Your task to perform on an android device: toggle notification dots Image 0: 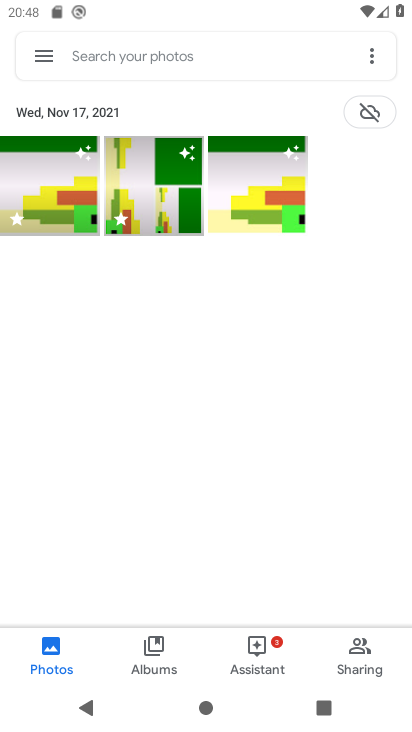
Step 0: press home button
Your task to perform on an android device: toggle notification dots Image 1: 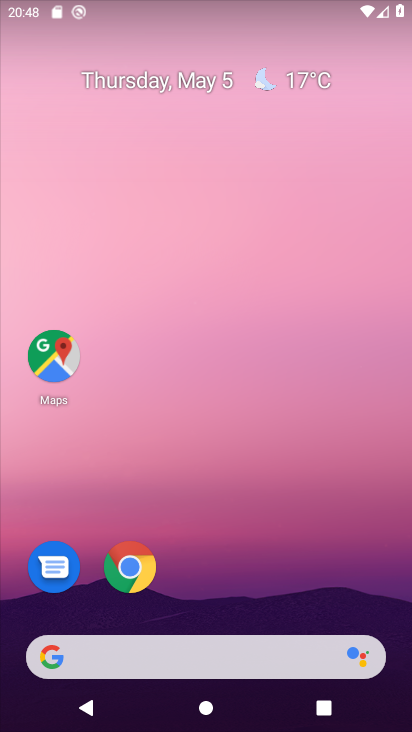
Step 1: drag from (273, 505) to (222, 19)
Your task to perform on an android device: toggle notification dots Image 2: 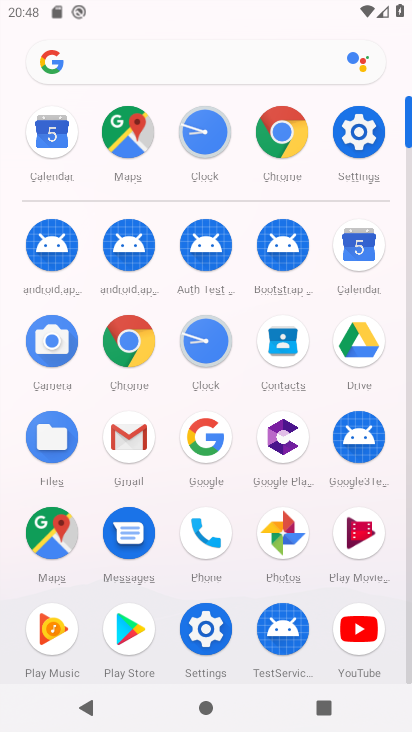
Step 2: click (360, 131)
Your task to perform on an android device: toggle notification dots Image 3: 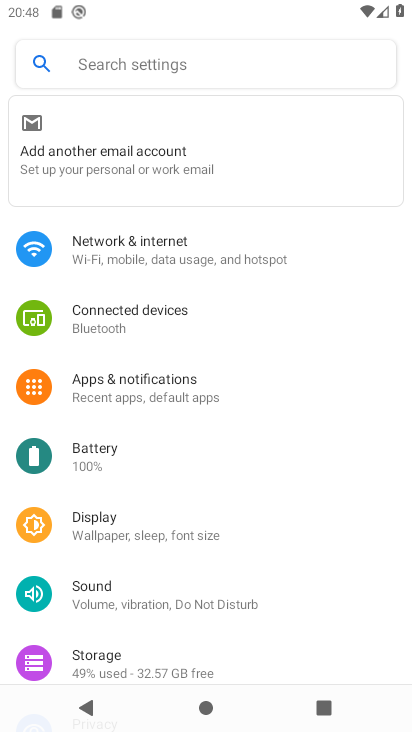
Step 3: click (214, 383)
Your task to perform on an android device: toggle notification dots Image 4: 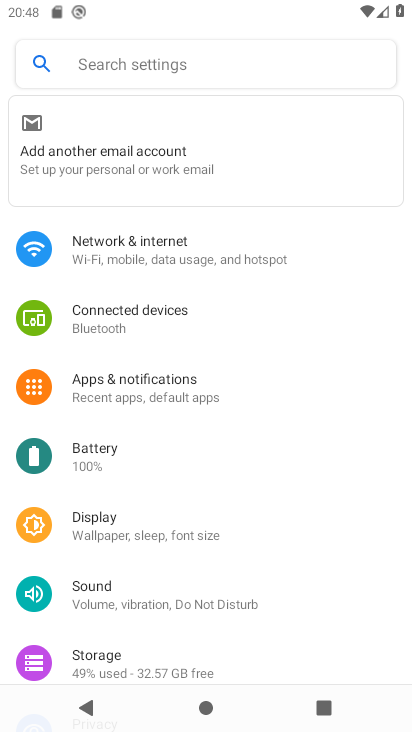
Step 4: click (196, 384)
Your task to perform on an android device: toggle notification dots Image 5: 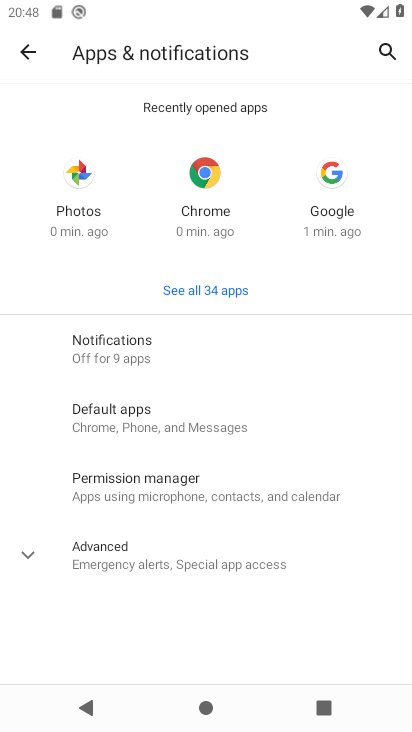
Step 5: click (132, 346)
Your task to perform on an android device: toggle notification dots Image 6: 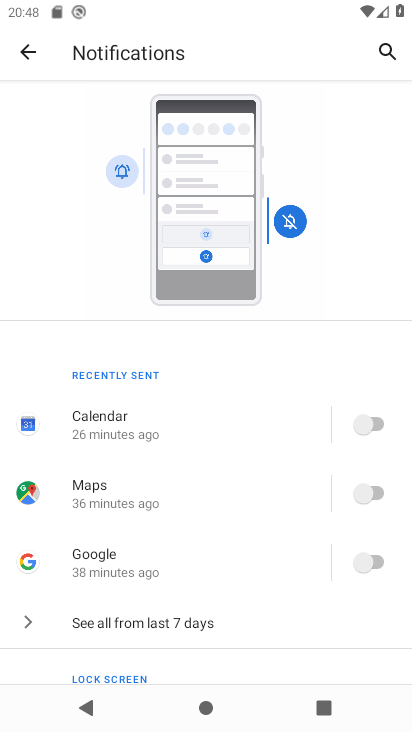
Step 6: drag from (196, 549) to (202, 150)
Your task to perform on an android device: toggle notification dots Image 7: 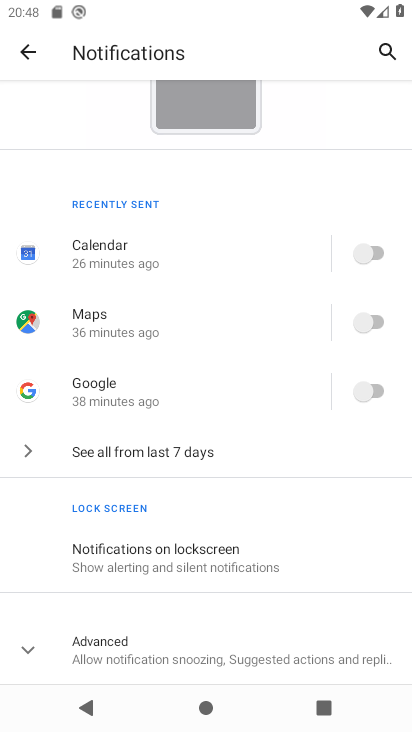
Step 7: click (25, 643)
Your task to perform on an android device: toggle notification dots Image 8: 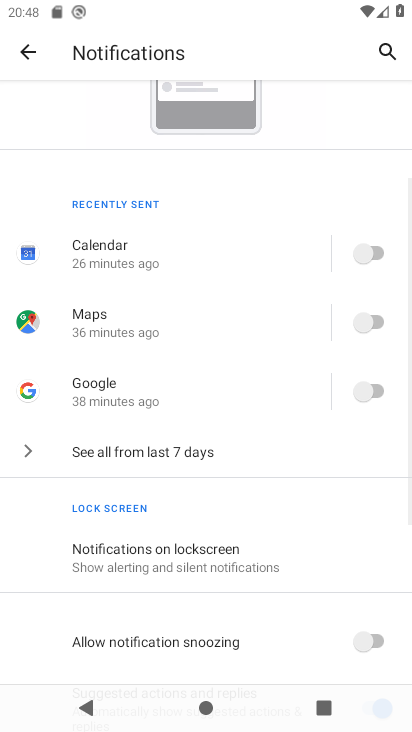
Step 8: drag from (271, 612) to (262, 207)
Your task to perform on an android device: toggle notification dots Image 9: 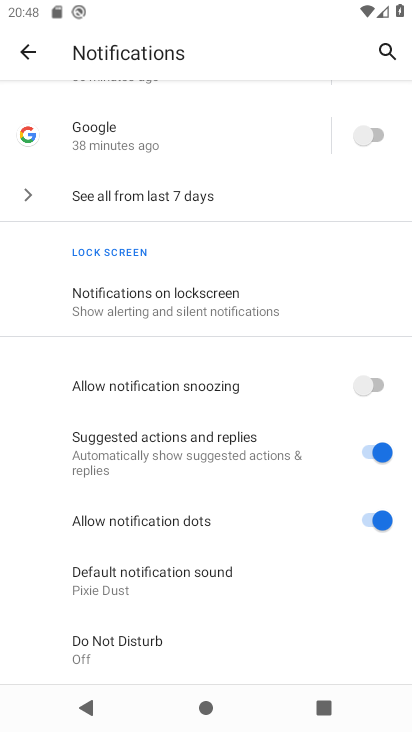
Step 9: click (367, 516)
Your task to perform on an android device: toggle notification dots Image 10: 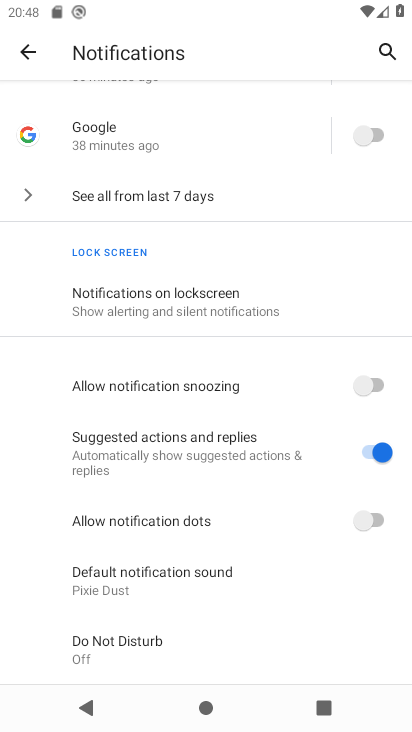
Step 10: task complete